Your task to perform on an android device: delete a single message in the gmail app Image 0: 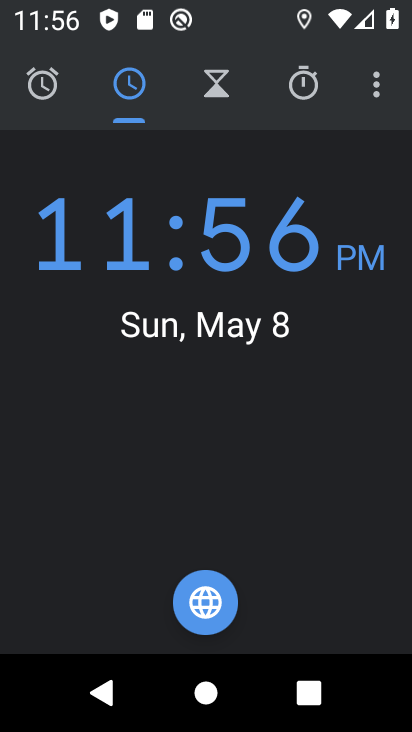
Step 0: press home button
Your task to perform on an android device: delete a single message in the gmail app Image 1: 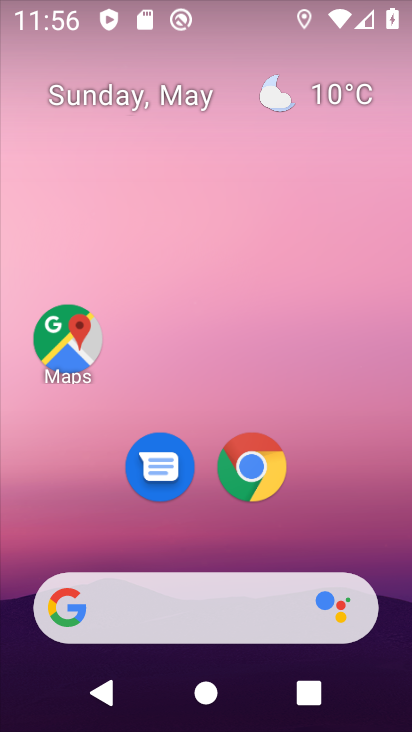
Step 1: drag from (370, 539) to (346, 116)
Your task to perform on an android device: delete a single message in the gmail app Image 2: 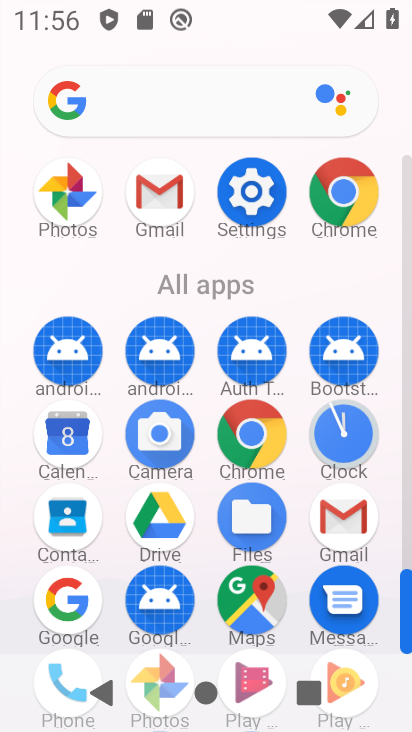
Step 2: click (334, 529)
Your task to perform on an android device: delete a single message in the gmail app Image 3: 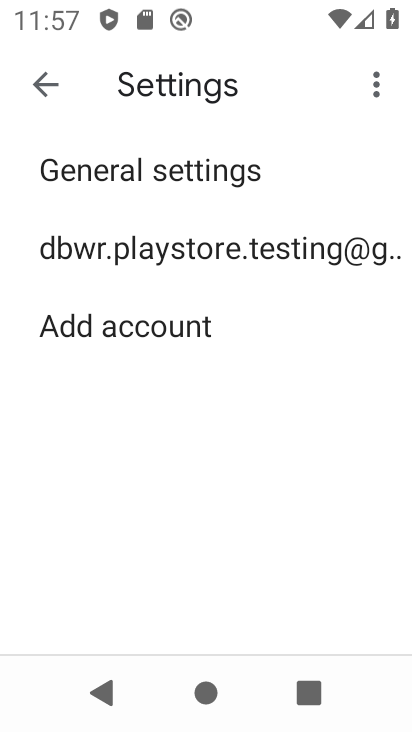
Step 3: click (44, 91)
Your task to perform on an android device: delete a single message in the gmail app Image 4: 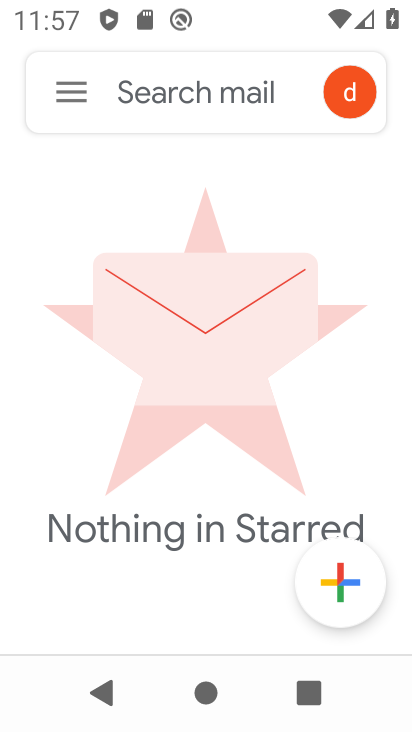
Step 4: click (55, 90)
Your task to perform on an android device: delete a single message in the gmail app Image 5: 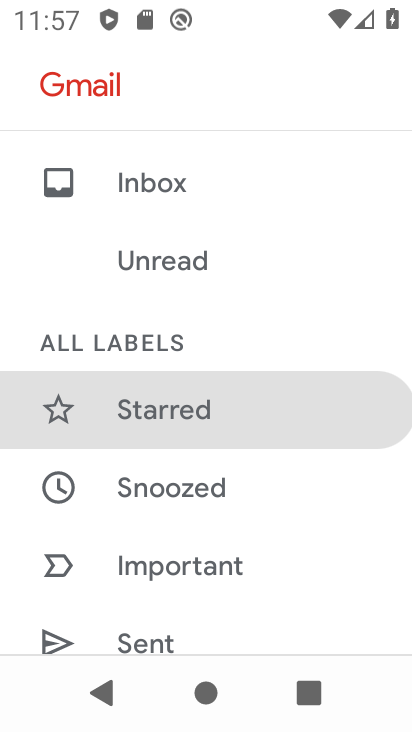
Step 5: drag from (259, 553) to (246, 209)
Your task to perform on an android device: delete a single message in the gmail app Image 6: 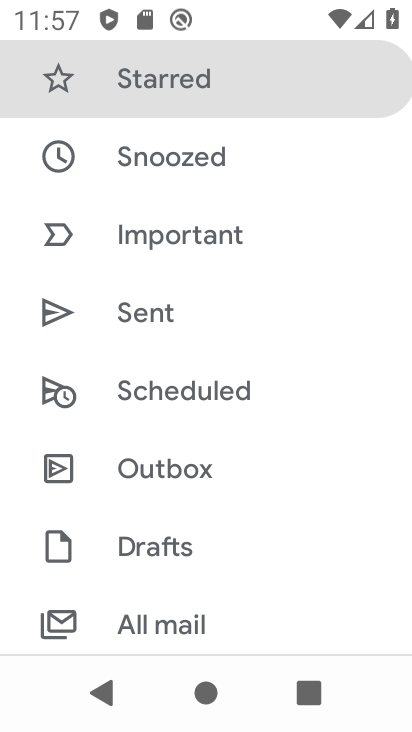
Step 6: click (181, 614)
Your task to perform on an android device: delete a single message in the gmail app Image 7: 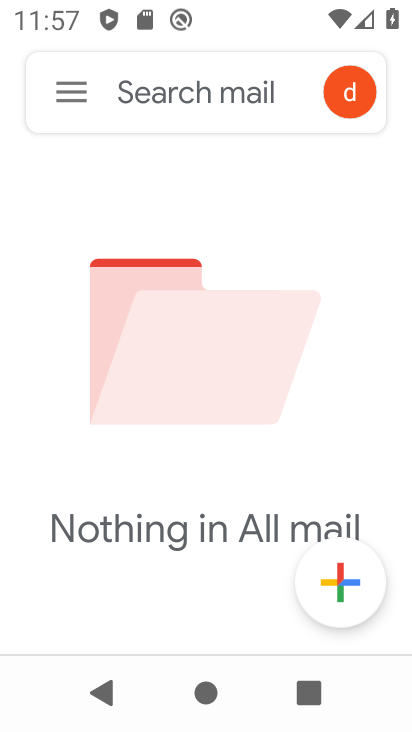
Step 7: task complete